Your task to perform on an android device: turn on bluetooth scan Image 0: 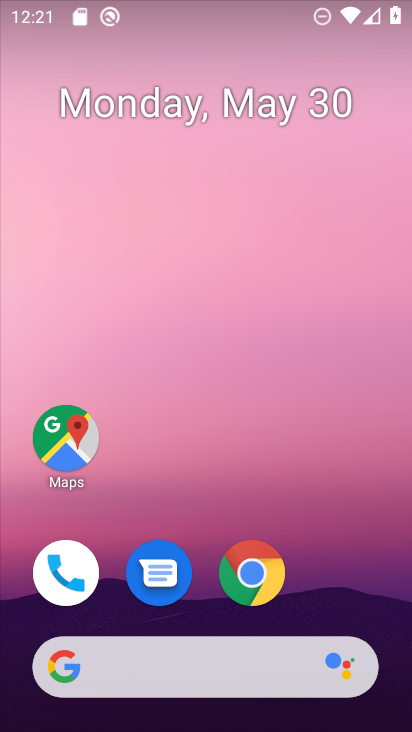
Step 0: press home button
Your task to perform on an android device: turn on bluetooth scan Image 1: 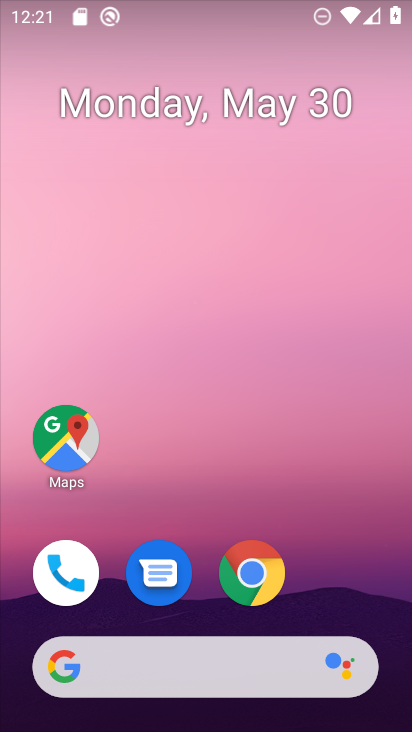
Step 1: drag from (319, 469) to (297, 189)
Your task to perform on an android device: turn on bluetooth scan Image 2: 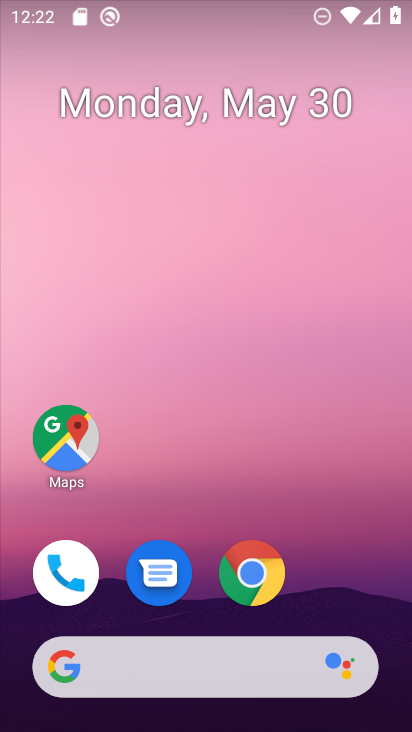
Step 2: drag from (321, 602) to (321, 141)
Your task to perform on an android device: turn on bluetooth scan Image 3: 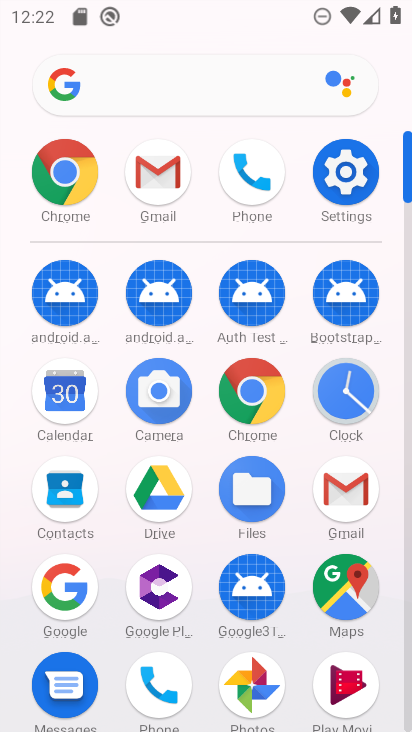
Step 3: click (340, 188)
Your task to perform on an android device: turn on bluetooth scan Image 4: 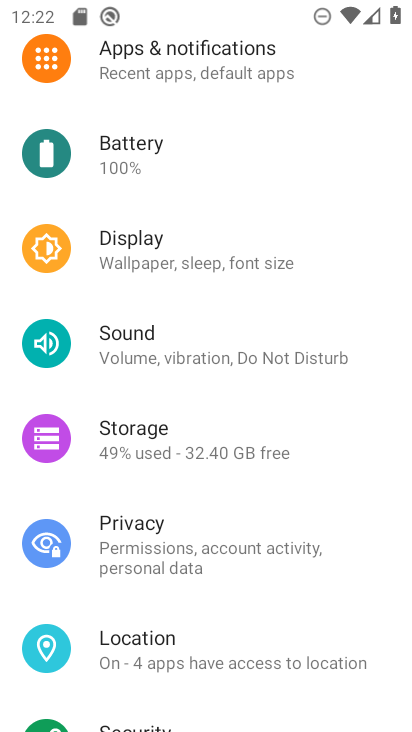
Step 4: click (122, 651)
Your task to perform on an android device: turn on bluetooth scan Image 5: 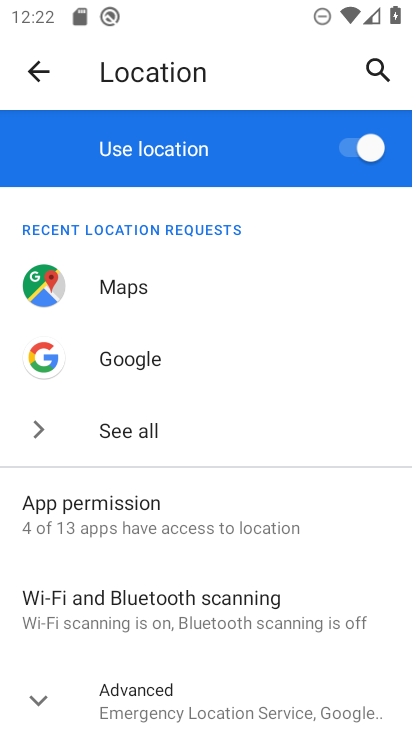
Step 5: drag from (256, 556) to (263, 290)
Your task to perform on an android device: turn on bluetooth scan Image 6: 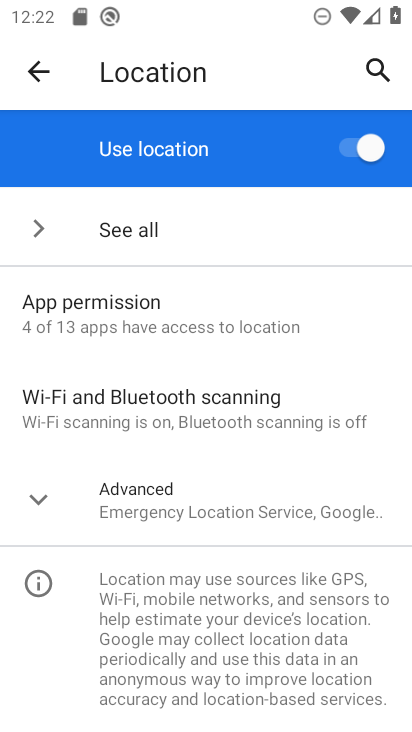
Step 6: click (121, 421)
Your task to perform on an android device: turn on bluetooth scan Image 7: 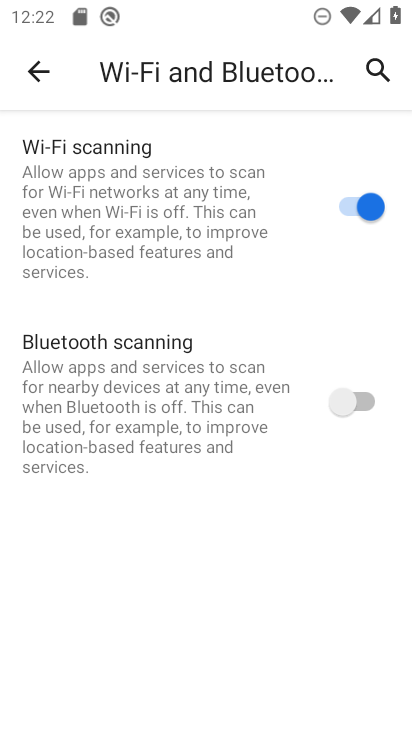
Step 7: click (342, 401)
Your task to perform on an android device: turn on bluetooth scan Image 8: 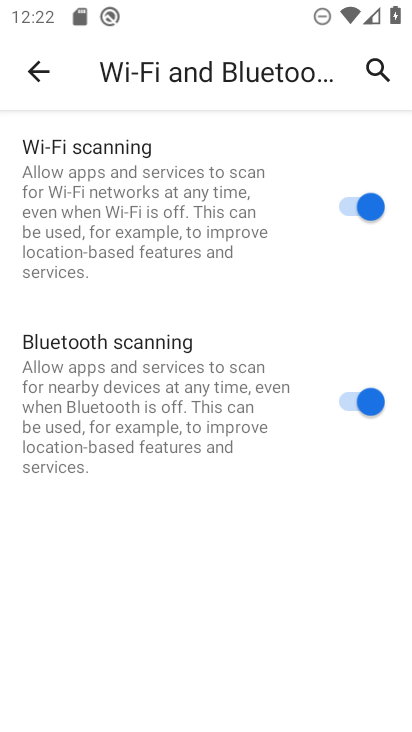
Step 8: task complete